Your task to perform on an android device: Open settings Image 0: 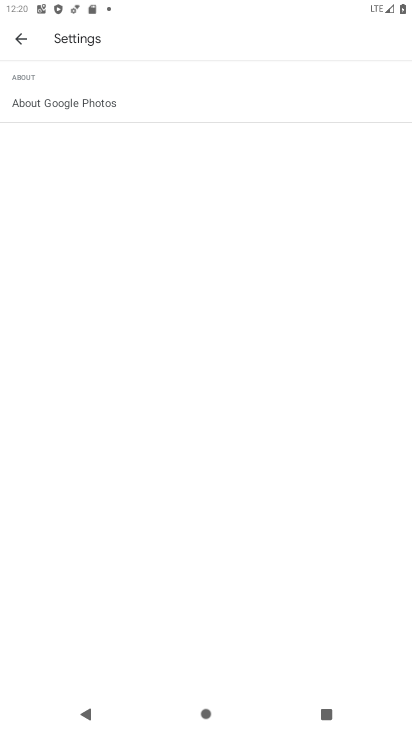
Step 0: press home button
Your task to perform on an android device: Open settings Image 1: 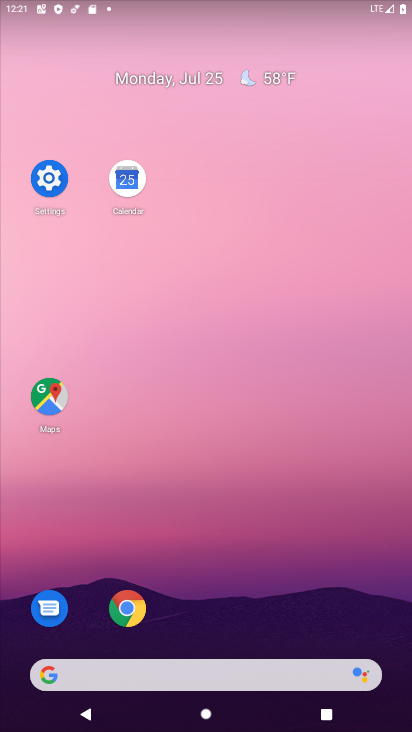
Step 1: click (63, 182)
Your task to perform on an android device: Open settings Image 2: 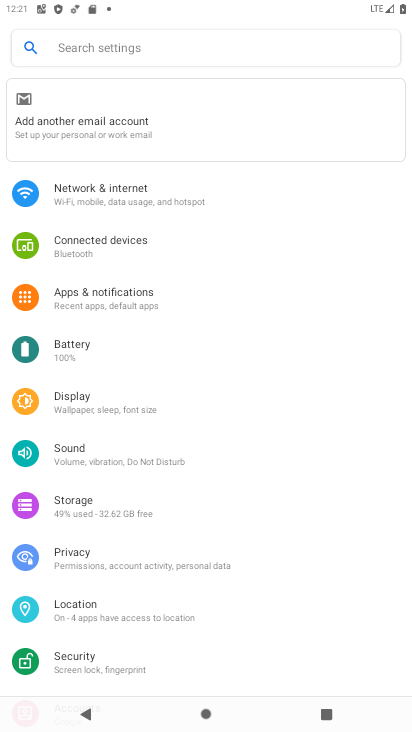
Step 2: task complete